Your task to perform on an android device: Go to eBay Image 0: 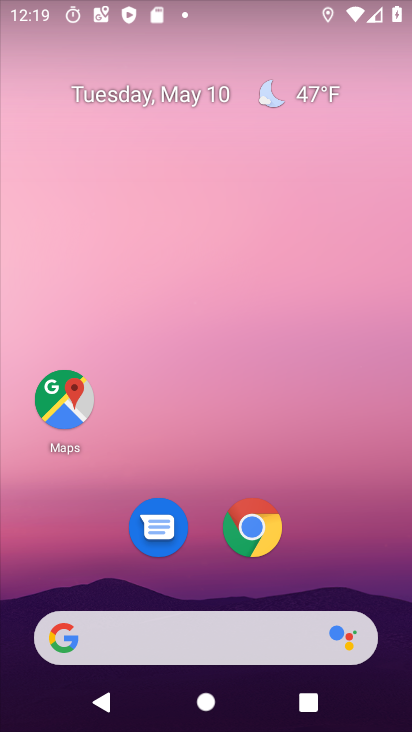
Step 0: drag from (340, 540) to (346, 90)
Your task to perform on an android device: Go to eBay Image 1: 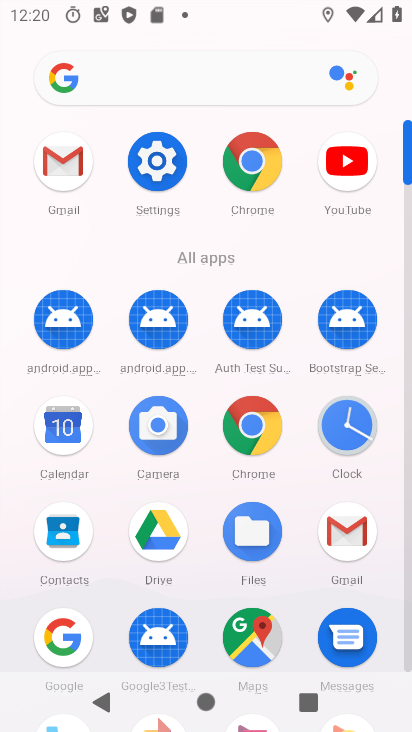
Step 1: click (254, 182)
Your task to perform on an android device: Go to eBay Image 2: 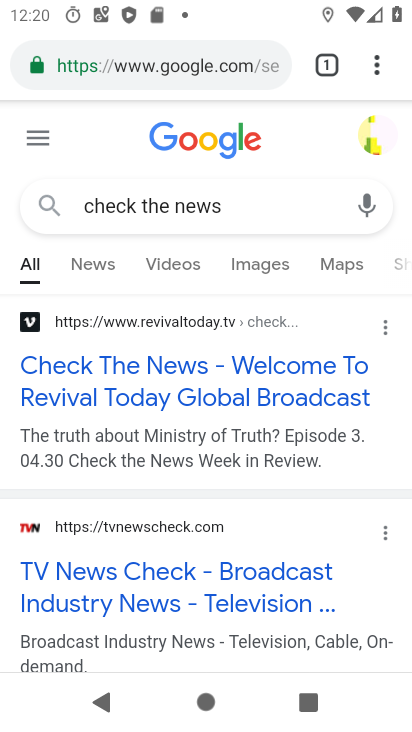
Step 2: click (170, 67)
Your task to perform on an android device: Go to eBay Image 3: 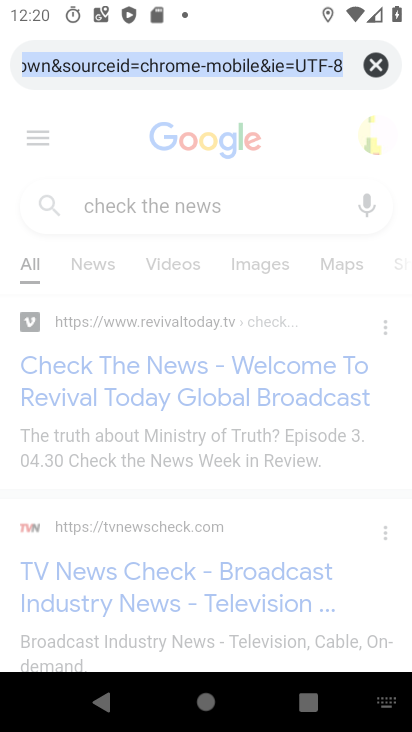
Step 3: click (377, 71)
Your task to perform on an android device: Go to eBay Image 4: 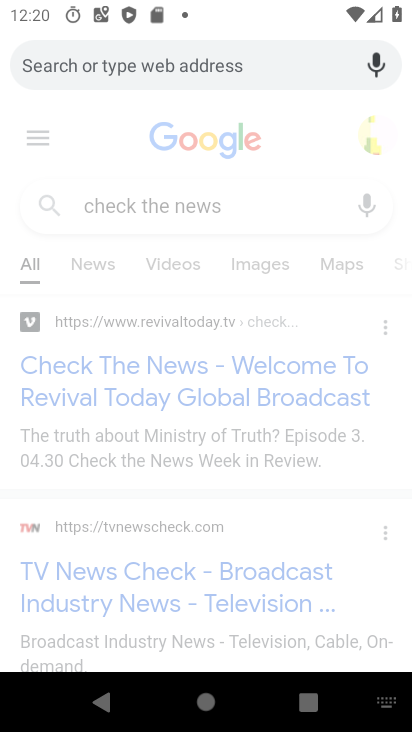
Step 4: type "ebay"
Your task to perform on an android device: Go to eBay Image 5: 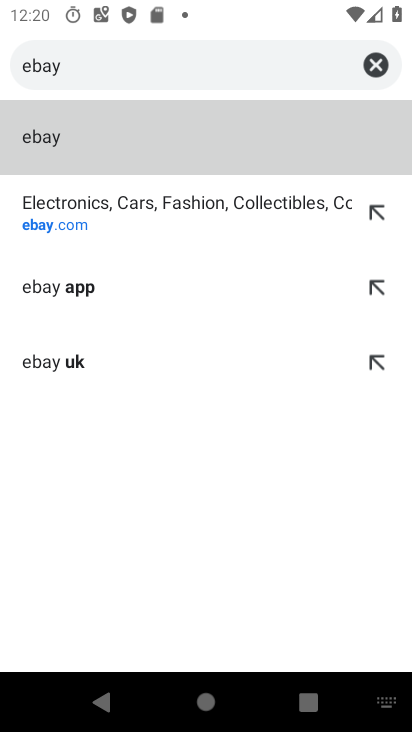
Step 5: click (91, 154)
Your task to perform on an android device: Go to eBay Image 6: 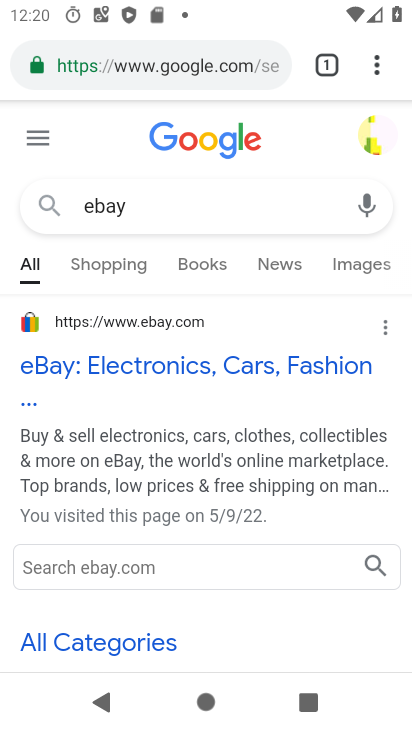
Step 6: click (110, 366)
Your task to perform on an android device: Go to eBay Image 7: 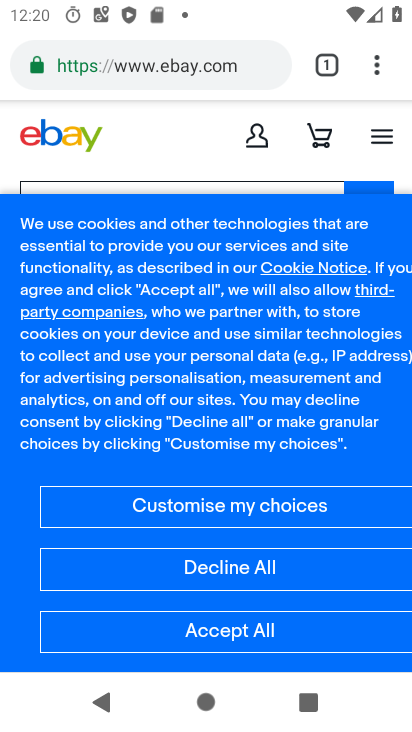
Step 7: task complete